Your task to perform on an android device: Open the phone app and click the voicemail tab. Image 0: 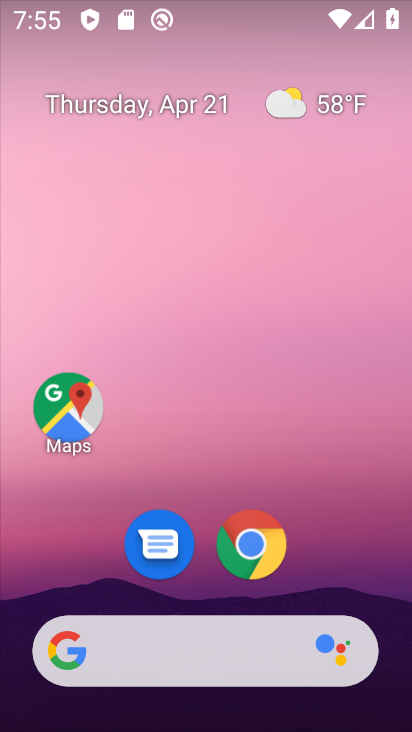
Step 0: drag from (307, 521) to (270, 102)
Your task to perform on an android device: Open the phone app and click the voicemail tab. Image 1: 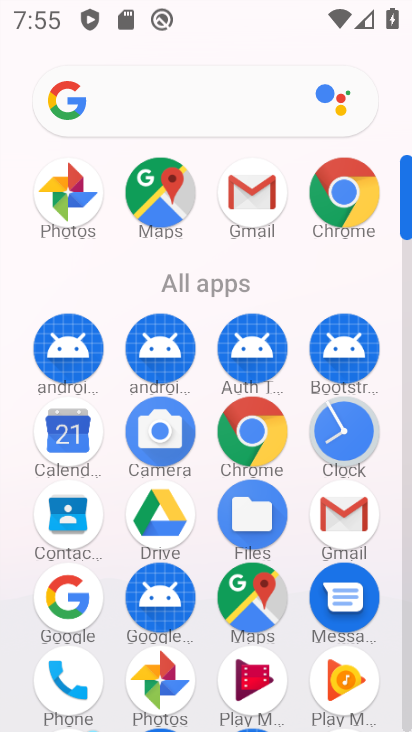
Step 1: click (49, 693)
Your task to perform on an android device: Open the phone app and click the voicemail tab. Image 2: 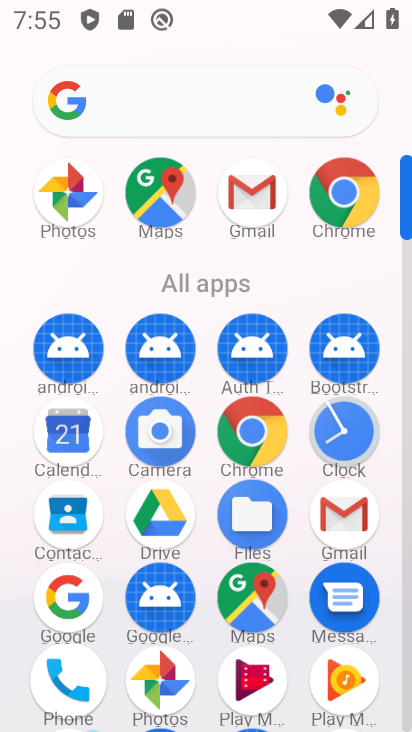
Step 2: click (49, 693)
Your task to perform on an android device: Open the phone app and click the voicemail tab. Image 3: 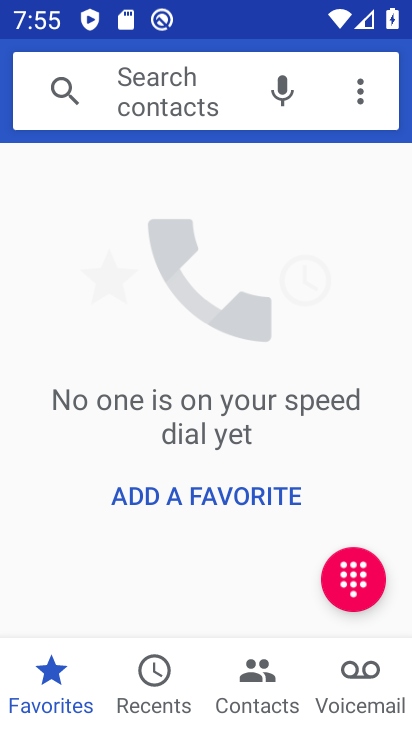
Step 3: click (359, 701)
Your task to perform on an android device: Open the phone app and click the voicemail tab. Image 4: 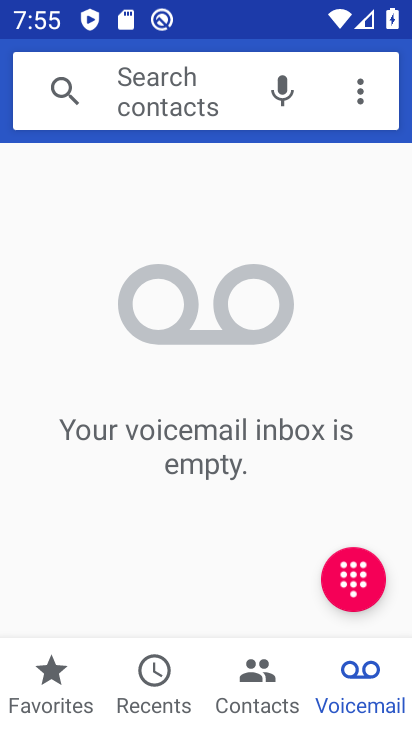
Step 4: click (358, 700)
Your task to perform on an android device: Open the phone app and click the voicemail tab. Image 5: 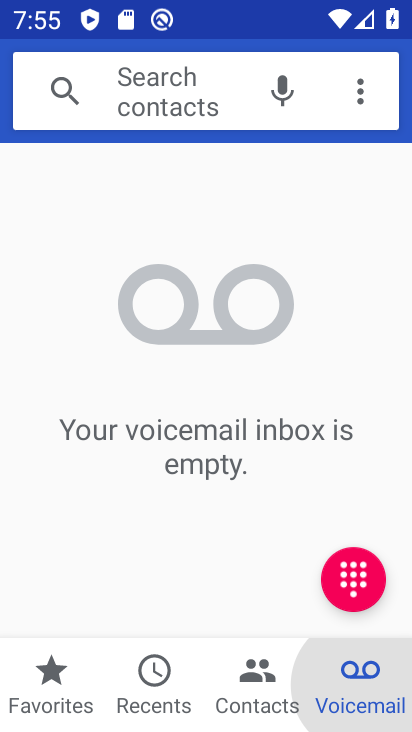
Step 5: click (358, 700)
Your task to perform on an android device: Open the phone app and click the voicemail tab. Image 6: 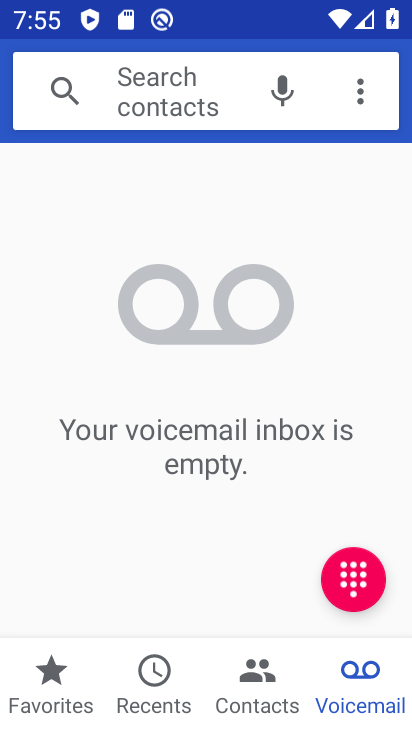
Step 6: task complete